Your task to perform on an android device: Search for vegetarian restaurants on Maps Image 0: 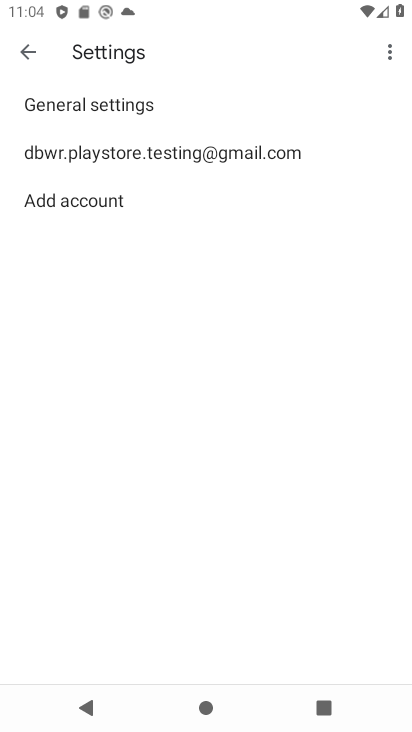
Step 0: press home button
Your task to perform on an android device: Search for vegetarian restaurants on Maps Image 1: 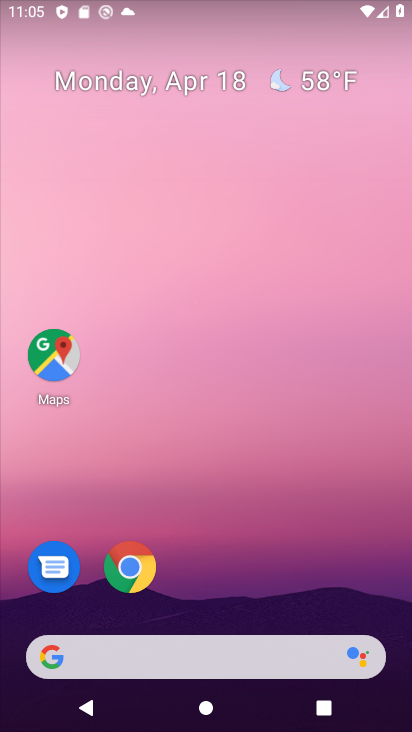
Step 1: click (50, 352)
Your task to perform on an android device: Search for vegetarian restaurants on Maps Image 2: 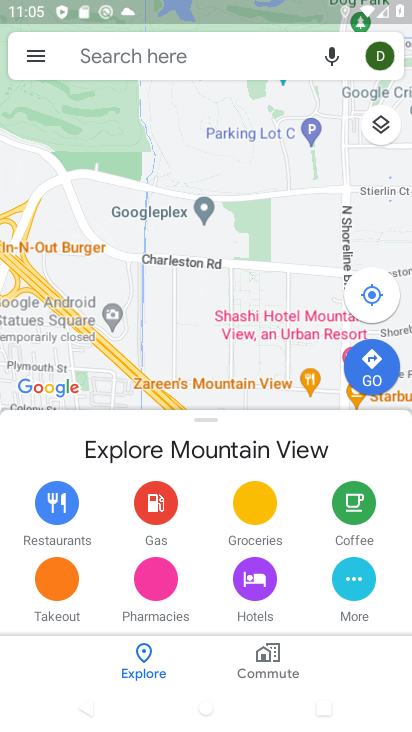
Step 2: click (134, 54)
Your task to perform on an android device: Search for vegetarian restaurants on Maps Image 3: 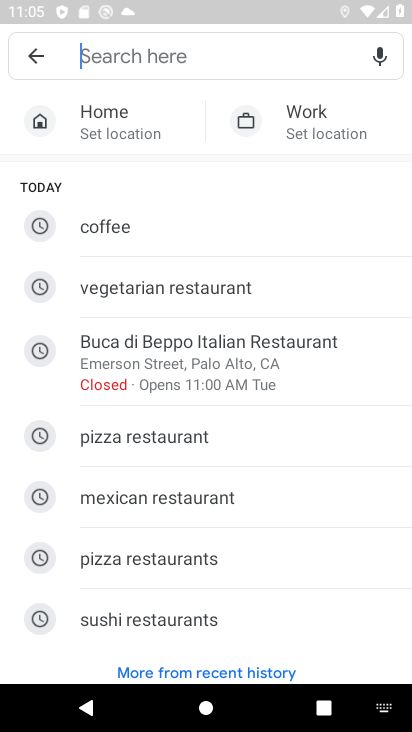
Step 3: type "vegetarian restaurants"
Your task to perform on an android device: Search for vegetarian restaurants on Maps Image 4: 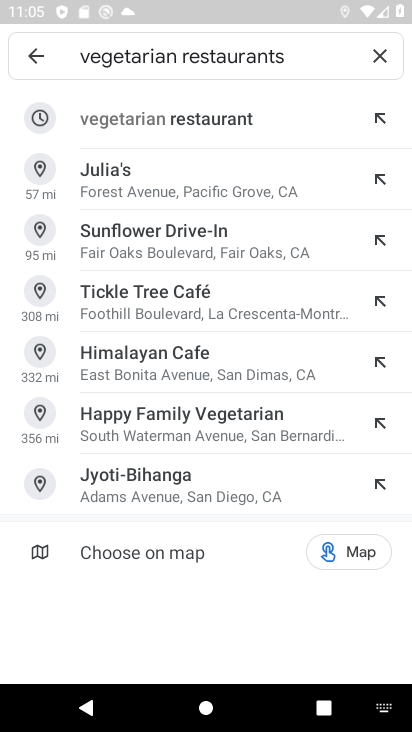
Step 4: click (176, 122)
Your task to perform on an android device: Search for vegetarian restaurants on Maps Image 5: 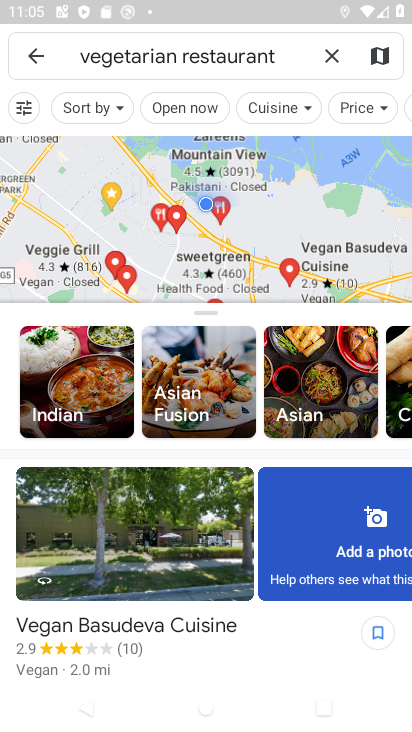
Step 5: task complete